Your task to perform on an android device: What's on my calendar tomorrow? Image 0: 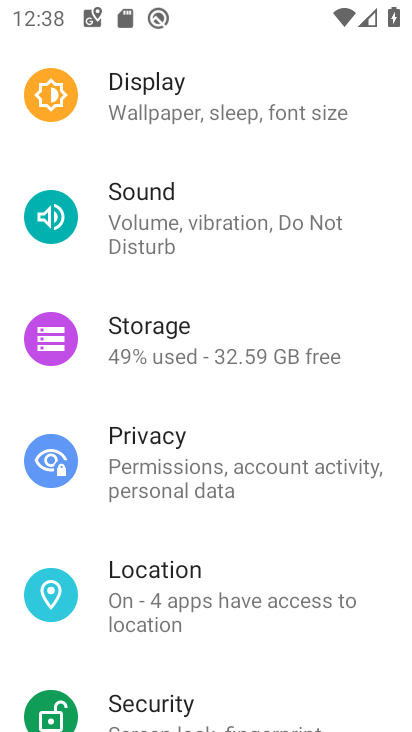
Step 0: press home button
Your task to perform on an android device: What's on my calendar tomorrow? Image 1: 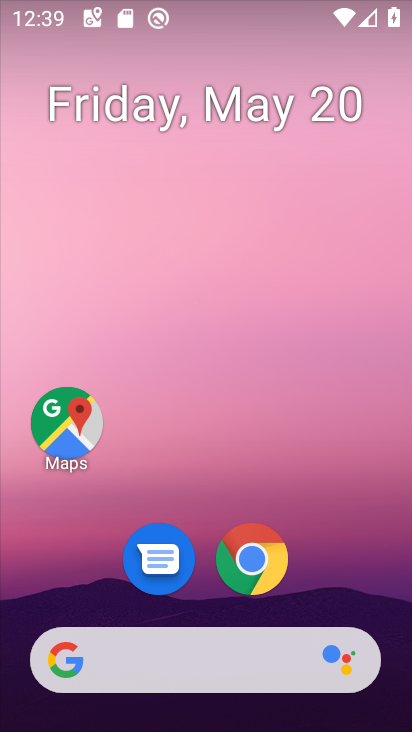
Step 1: drag from (364, 560) to (282, 131)
Your task to perform on an android device: What's on my calendar tomorrow? Image 2: 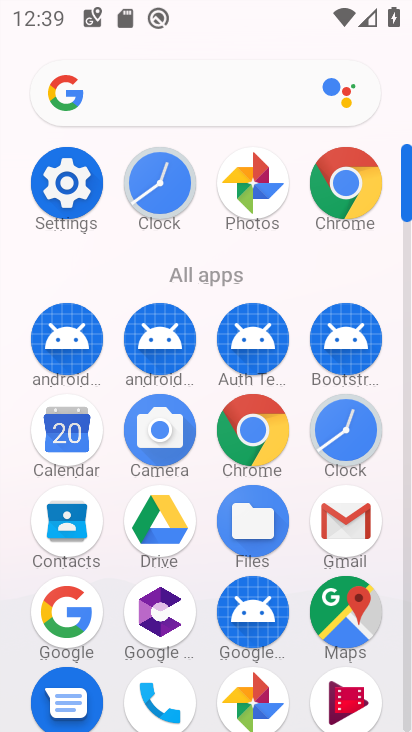
Step 2: click (74, 434)
Your task to perform on an android device: What's on my calendar tomorrow? Image 3: 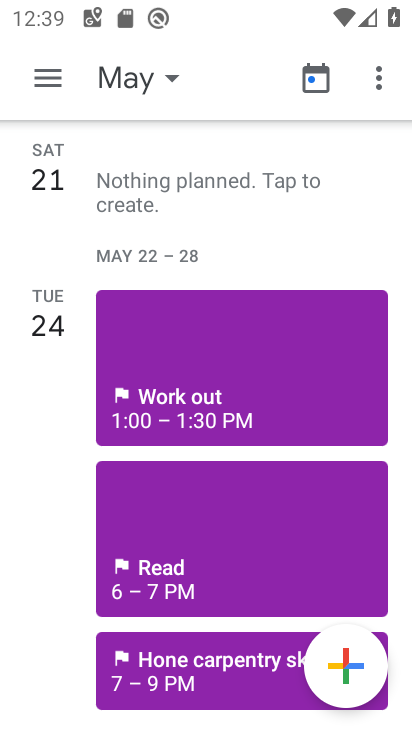
Step 3: task complete